Your task to perform on an android device: Open Youtube and go to the subscriptions tab Image 0: 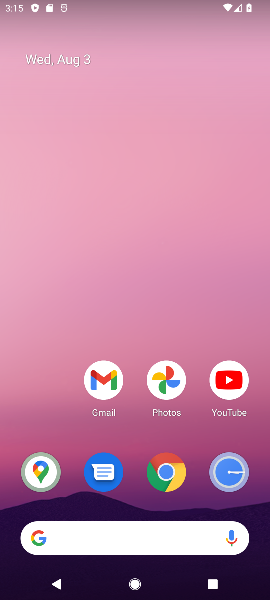
Step 0: drag from (182, 449) to (89, 130)
Your task to perform on an android device: Open Youtube and go to the subscriptions tab Image 1: 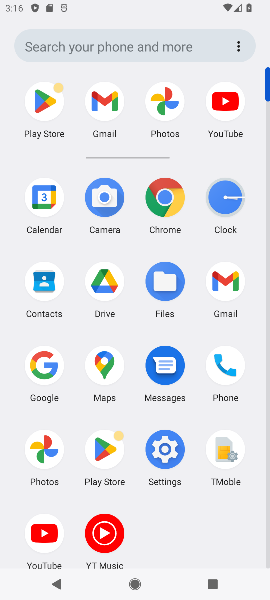
Step 1: click (46, 538)
Your task to perform on an android device: Open Youtube and go to the subscriptions tab Image 2: 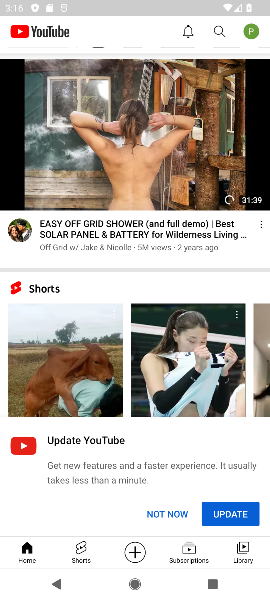
Step 2: click (189, 546)
Your task to perform on an android device: Open Youtube and go to the subscriptions tab Image 3: 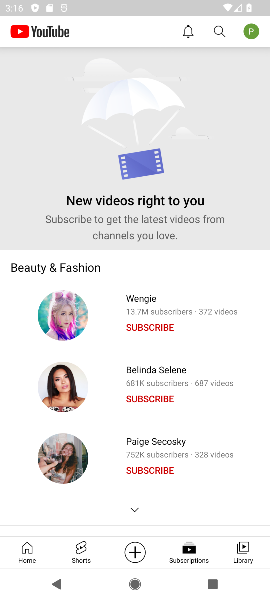
Step 3: task complete